Your task to perform on an android device: Search for Italian restaurants on Maps Image 0: 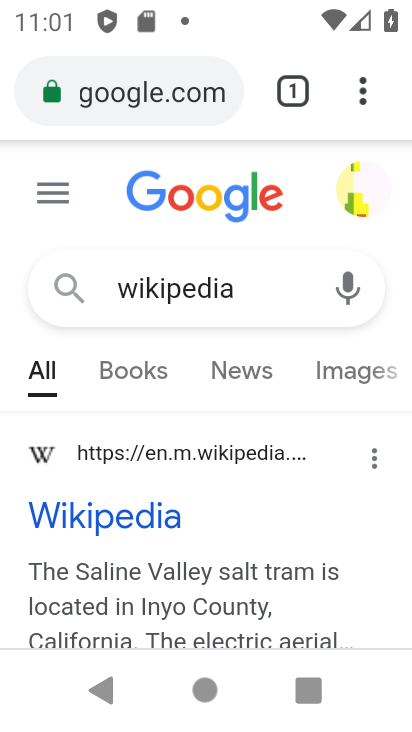
Step 0: press home button
Your task to perform on an android device: Search for Italian restaurants on Maps Image 1: 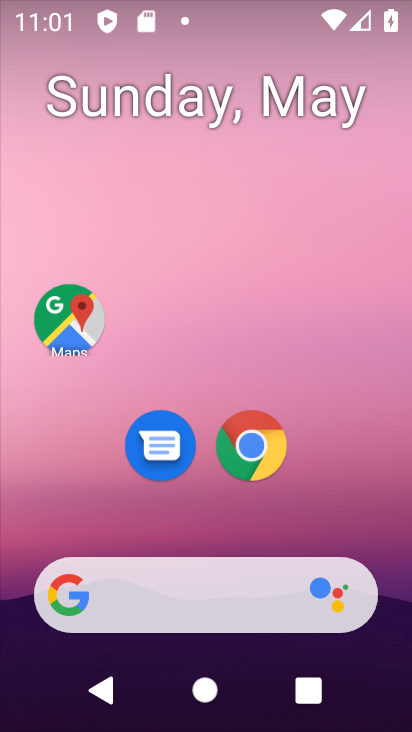
Step 1: click (70, 320)
Your task to perform on an android device: Search for Italian restaurants on Maps Image 2: 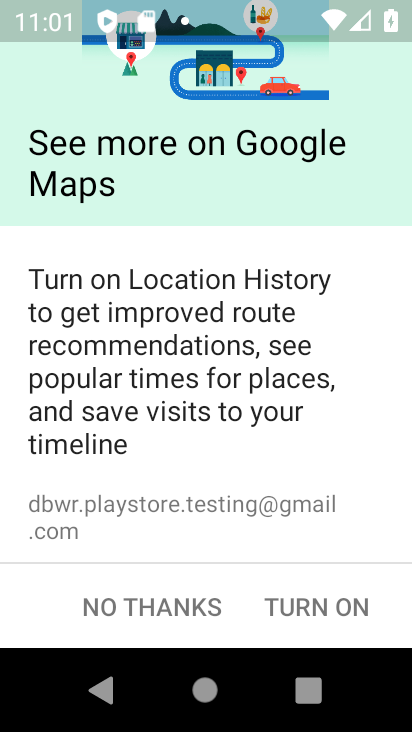
Step 2: press home button
Your task to perform on an android device: Search for Italian restaurants on Maps Image 3: 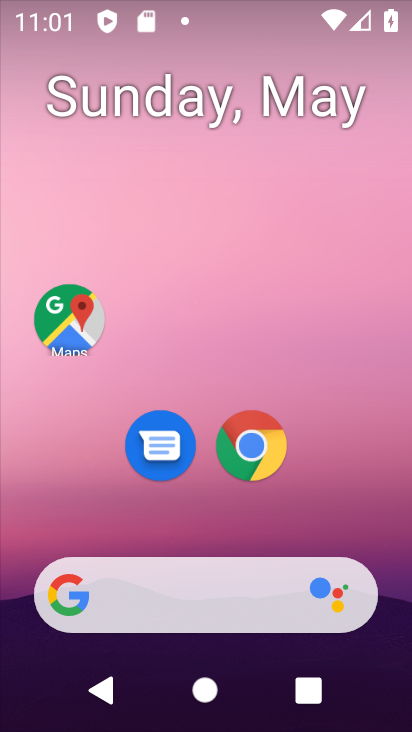
Step 3: click (80, 316)
Your task to perform on an android device: Search for Italian restaurants on Maps Image 4: 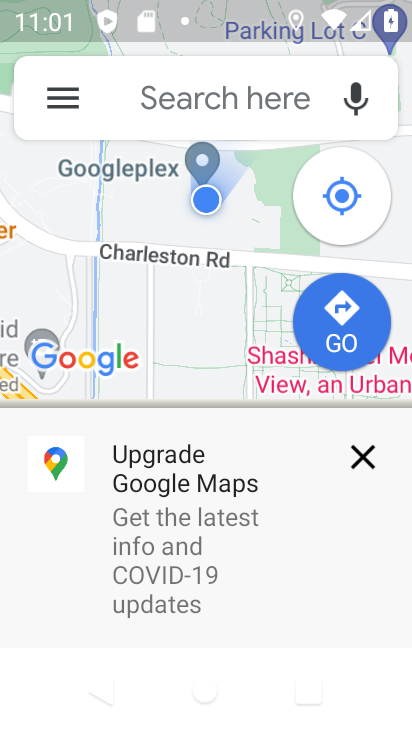
Step 4: click (183, 99)
Your task to perform on an android device: Search for Italian restaurants on Maps Image 5: 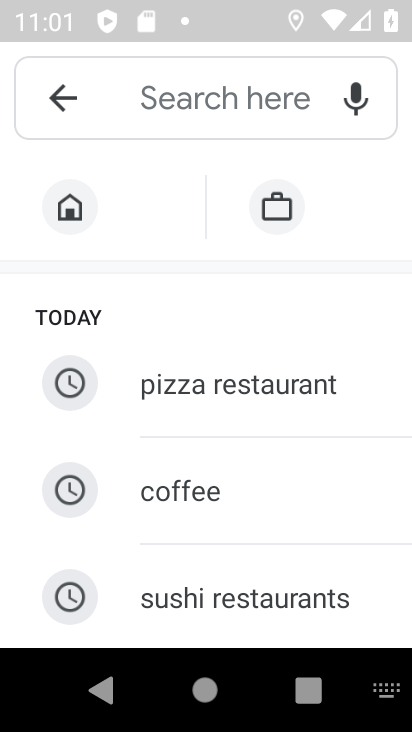
Step 5: type "italian restaurants"
Your task to perform on an android device: Search for Italian restaurants on Maps Image 6: 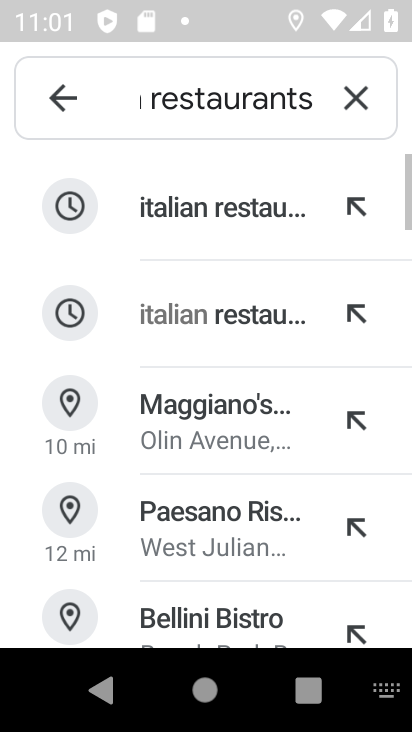
Step 6: click (200, 194)
Your task to perform on an android device: Search for Italian restaurants on Maps Image 7: 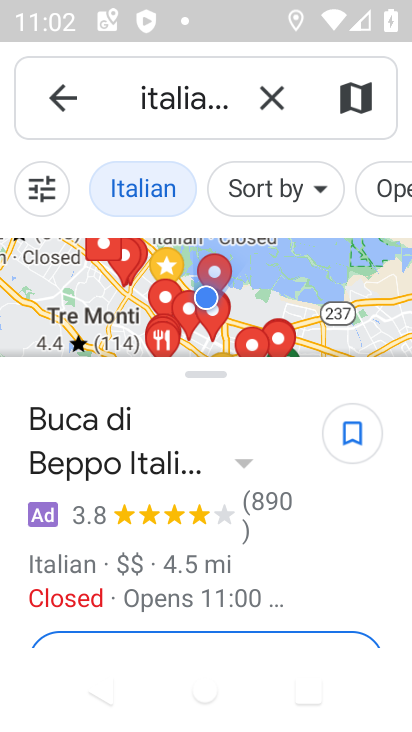
Step 7: task complete